Your task to perform on an android device: turn on airplane mode Image 0: 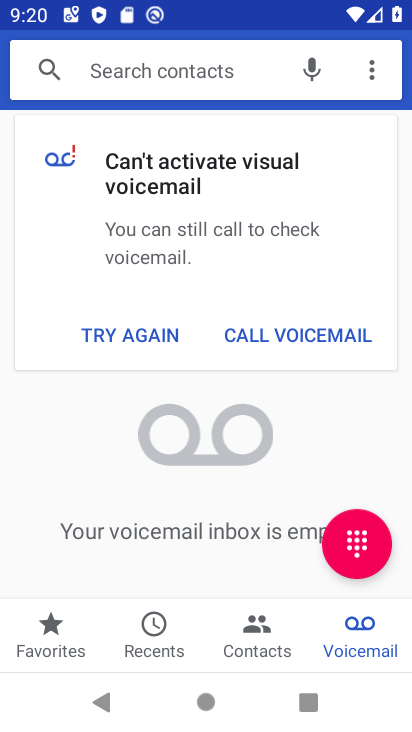
Step 0: press home button
Your task to perform on an android device: turn on airplane mode Image 1: 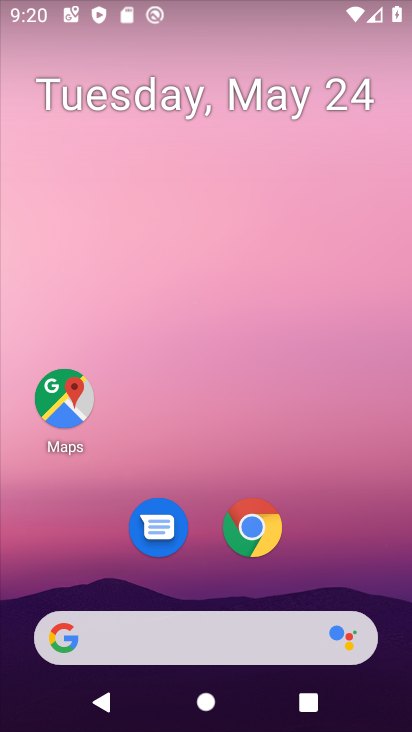
Step 1: drag from (394, 669) to (329, 159)
Your task to perform on an android device: turn on airplane mode Image 2: 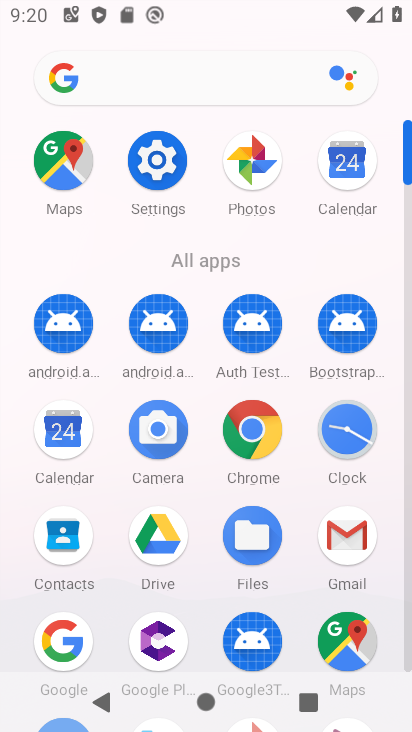
Step 2: click (151, 165)
Your task to perform on an android device: turn on airplane mode Image 3: 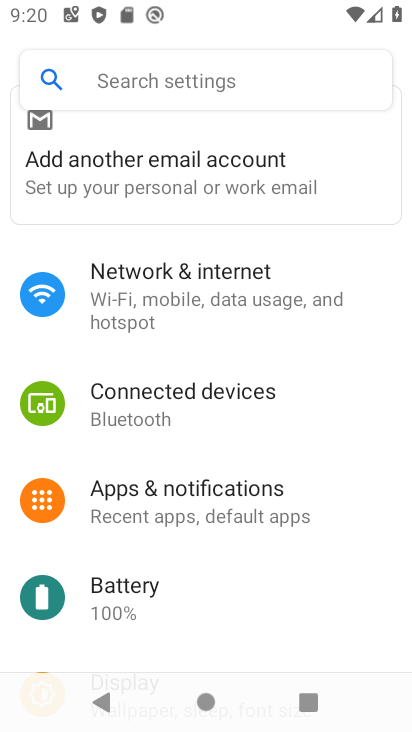
Step 3: click (212, 291)
Your task to perform on an android device: turn on airplane mode Image 4: 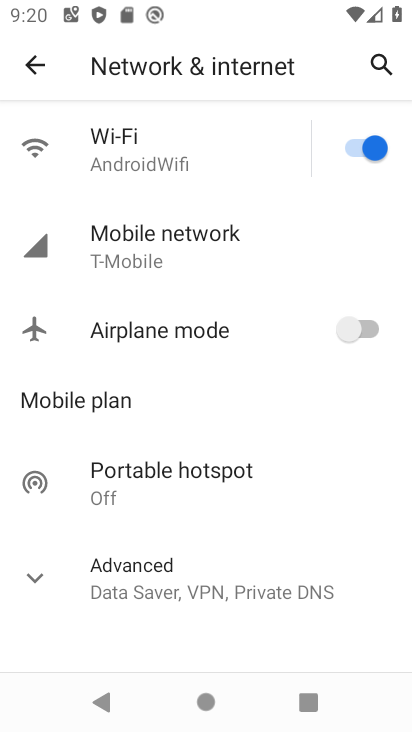
Step 4: click (369, 322)
Your task to perform on an android device: turn on airplane mode Image 5: 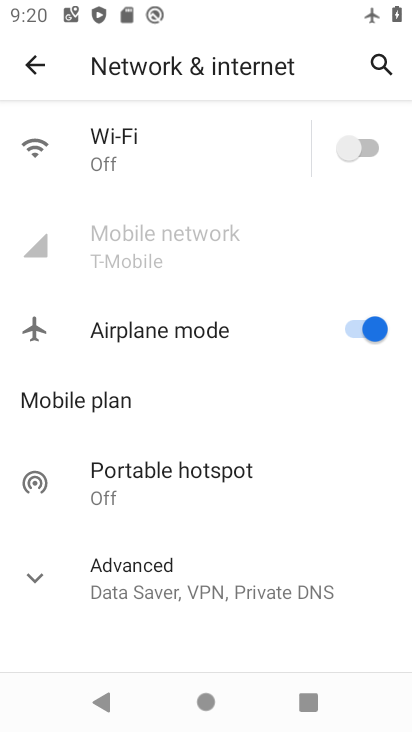
Step 5: task complete